Your task to perform on an android device: turn off sleep mode Image 0: 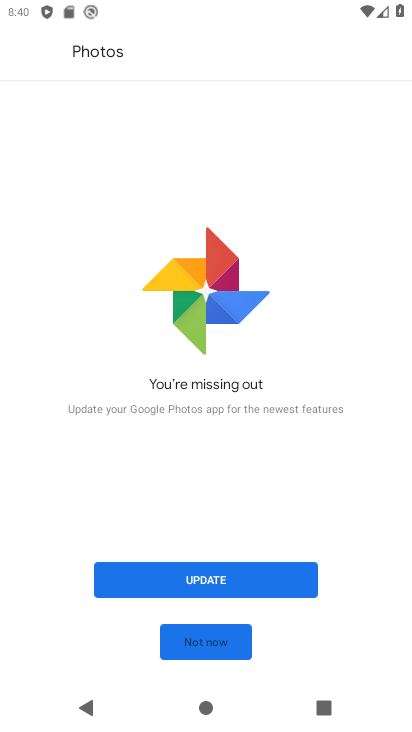
Step 0: press home button
Your task to perform on an android device: turn off sleep mode Image 1: 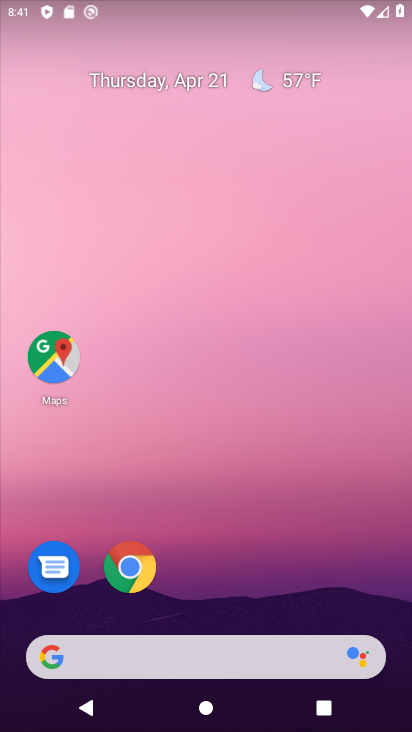
Step 1: drag from (208, 624) to (178, 38)
Your task to perform on an android device: turn off sleep mode Image 2: 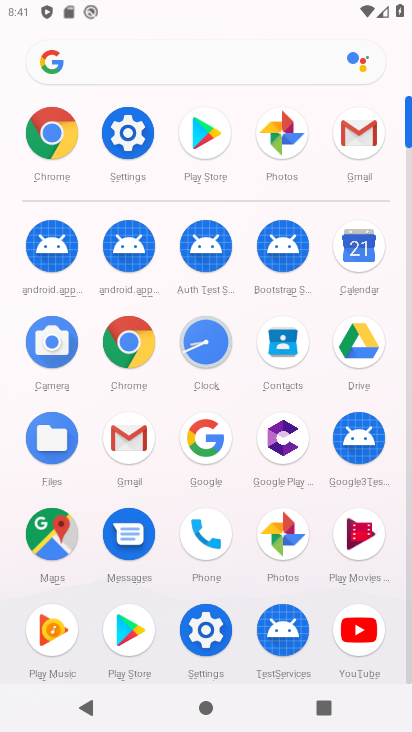
Step 2: click (128, 139)
Your task to perform on an android device: turn off sleep mode Image 3: 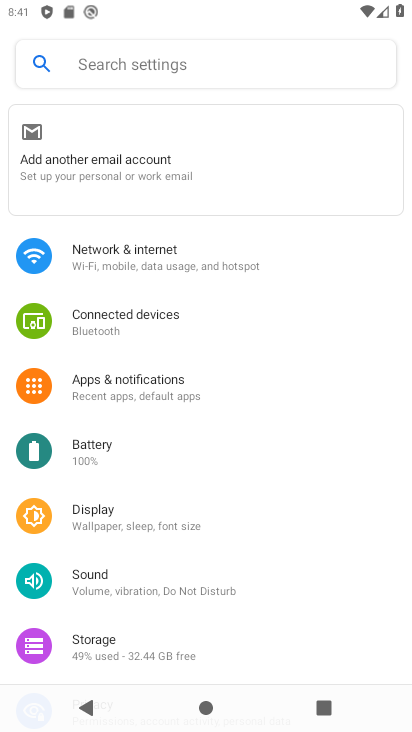
Step 3: drag from (183, 607) to (169, 368)
Your task to perform on an android device: turn off sleep mode Image 4: 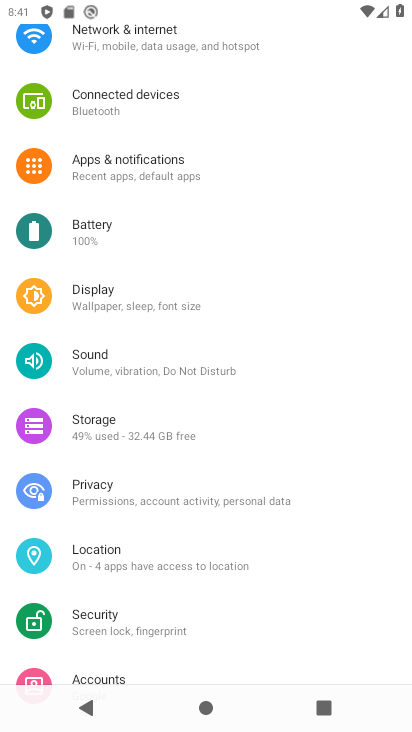
Step 4: click (102, 284)
Your task to perform on an android device: turn off sleep mode Image 5: 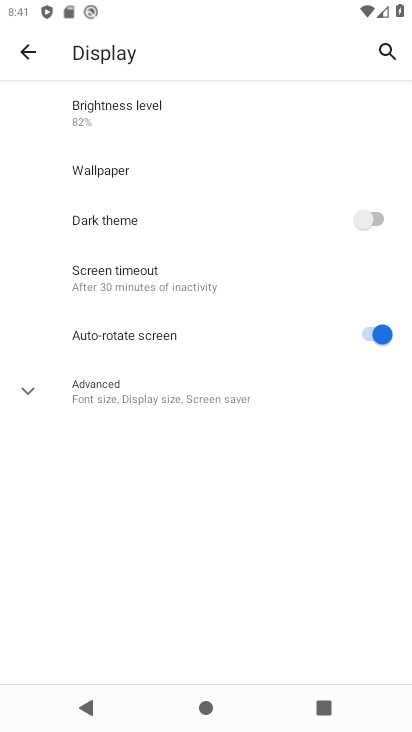
Step 5: click (105, 402)
Your task to perform on an android device: turn off sleep mode Image 6: 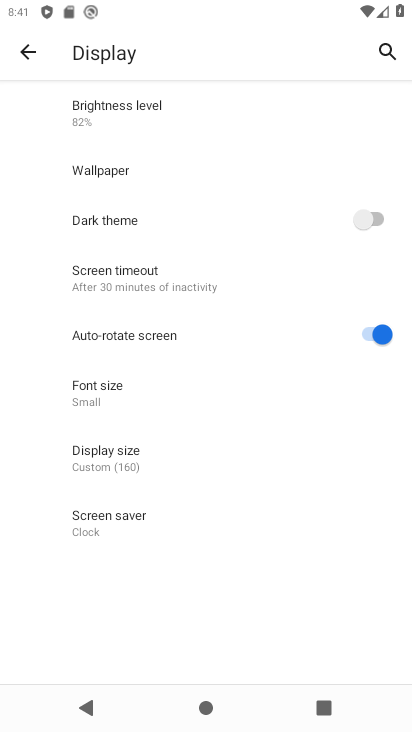
Step 6: task complete